Your task to perform on an android device: allow notifications from all sites in the chrome app Image 0: 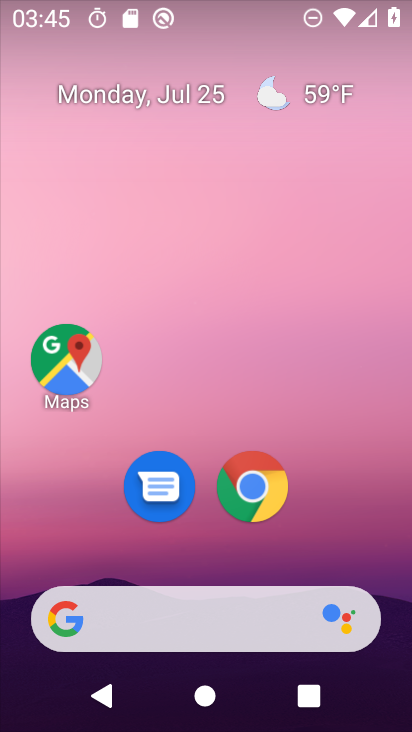
Step 0: click (245, 474)
Your task to perform on an android device: allow notifications from all sites in the chrome app Image 1: 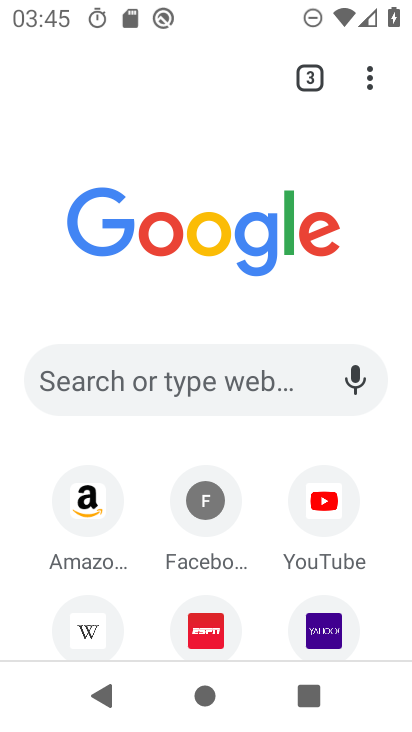
Step 1: drag from (365, 73) to (81, 535)
Your task to perform on an android device: allow notifications from all sites in the chrome app Image 2: 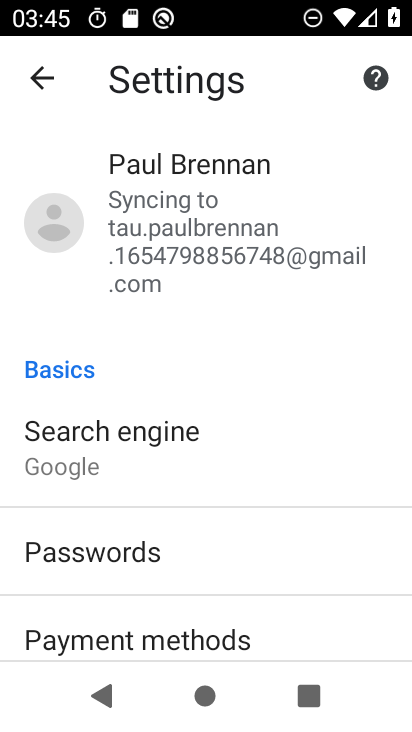
Step 2: drag from (152, 624) to (234, 204)
Your task to perform on an android device: allow notifications from all sites in the chrome app Image 3: 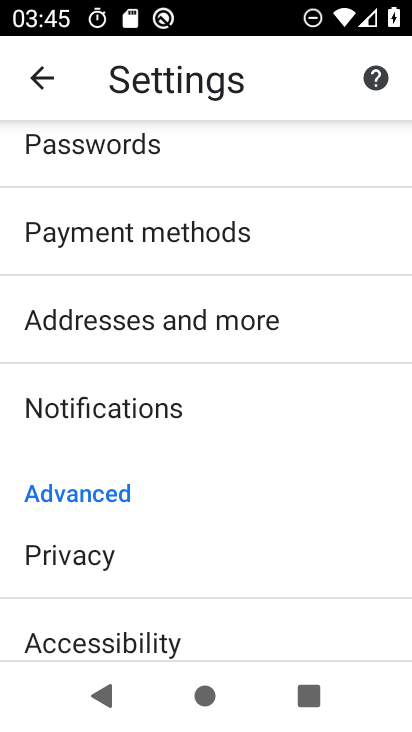
Step 3: drag from (140, 582) to (236, 206)
Your task to perform on an android device: allow notifications from all sites in the chrome app Image 4: 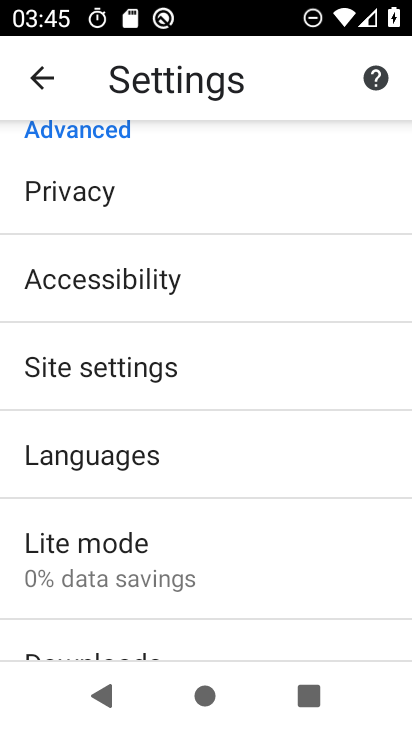
Step 4: drag from (198, 253) to (204, 492)
Your task to perform on an android device: allow notifications from all sites in the chrome app Image 5: 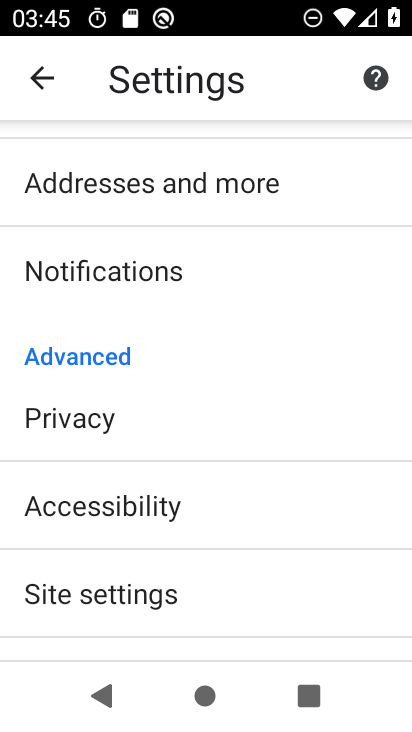
Step 5: click (128, 270)
Your task to perform on an android device: allow notifications from all sites in the chrome app Image 6: 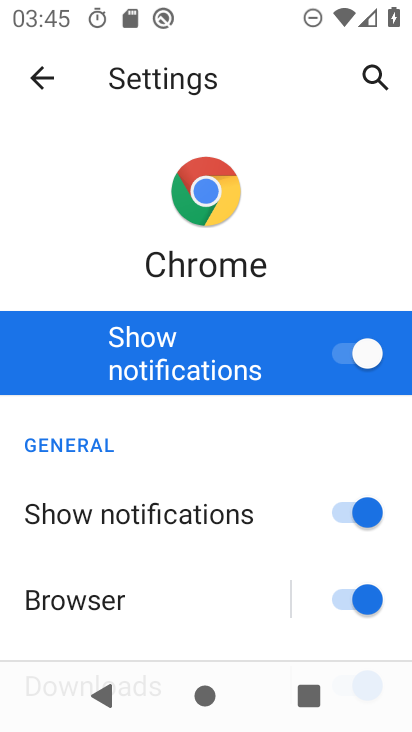
Step 6: task complete